Your task to perform on an android device: Open the calendar and show me this week's events Image 0: 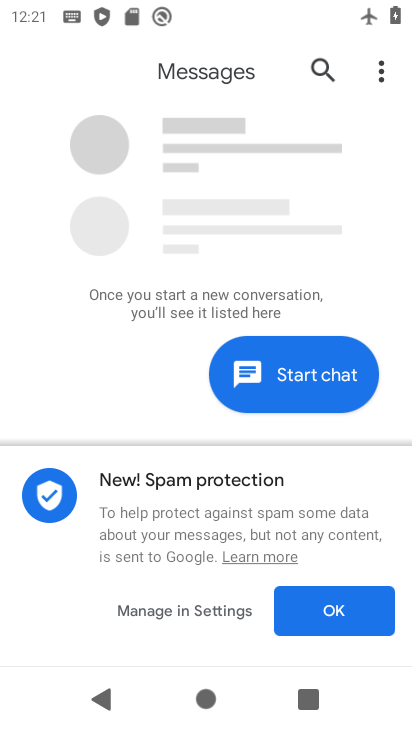
Step 0: press home button
Your task to perform on an android device: Open the calendar and show me this week's events Image 1: 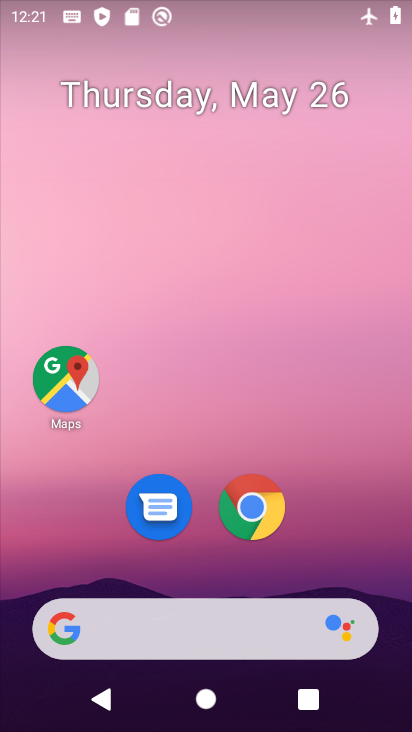
Step 1: drag from (212, 568) to (212, 253)
Your task to perform on an android device: Open the calendar and show me this week's events Image 2: 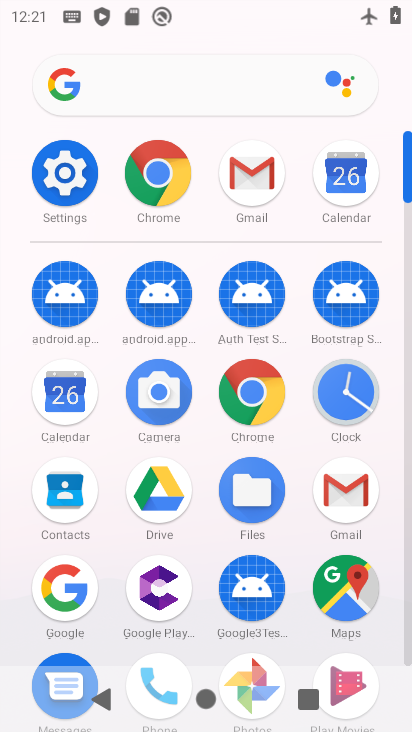
Step 2: click (350, 166)
Your task to perform on an android device: Open the calendar and show me this week's events Image 3: 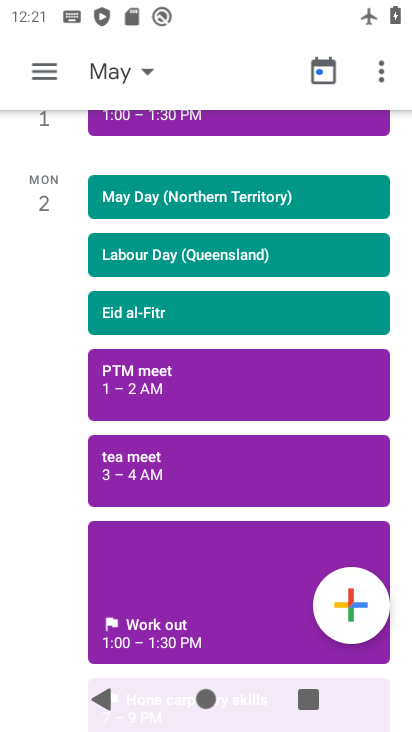
Step 3: click (139, 79)
Your task to perform on an android device: Open the calendar and show me this week's events Image 4: 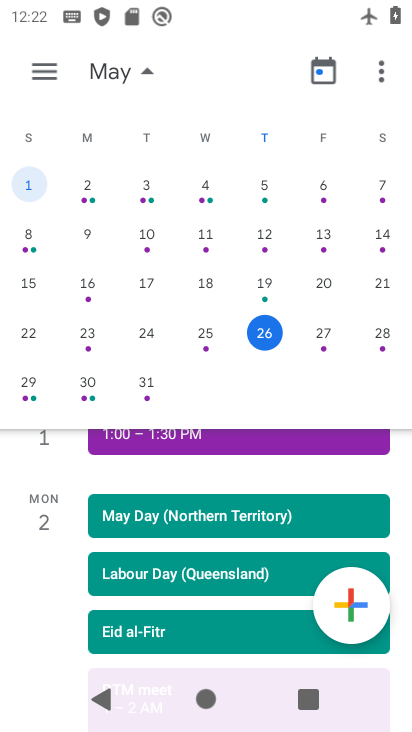
Step 4: click (318, 335)
Your task to perform on an android device: Open the calendar and show me this week's events Image 5: 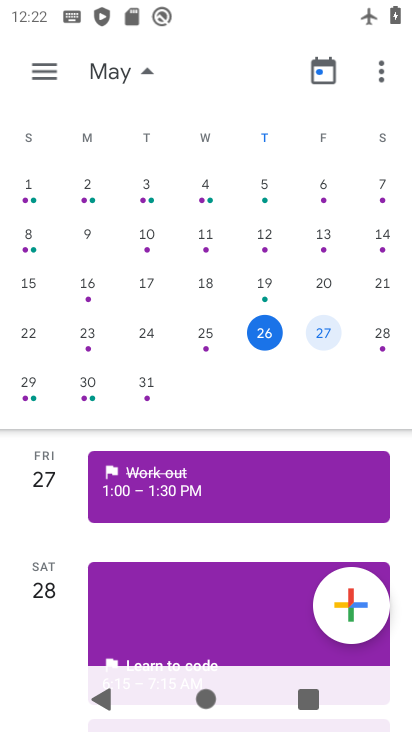
Step 5: click (267, 334)
Your task to perform on an android device: Open the calendar and show me this week's events Image 6: 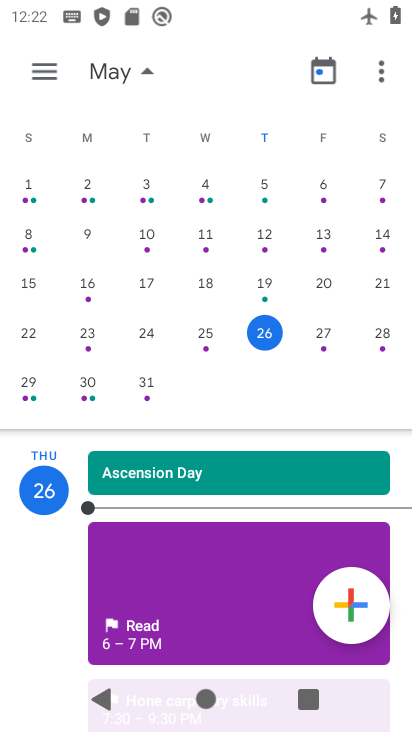
Step 6: task complete